Your task to perform on an android device: clear history in the chrome app Image 0: 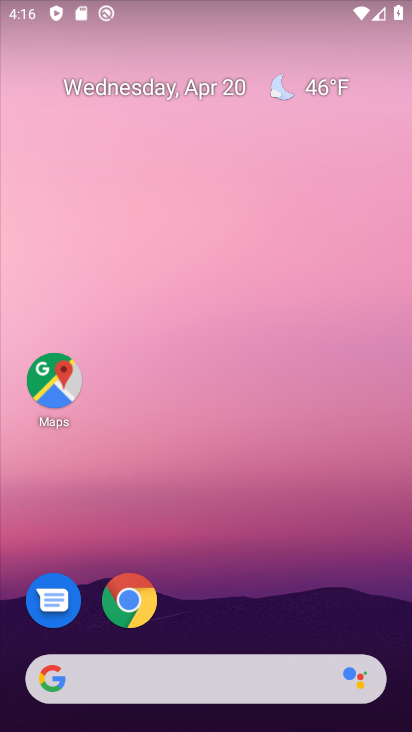
Step 0: click (131, 596)
Your task to perform on an android device: clear history in the chrome app Image 1: 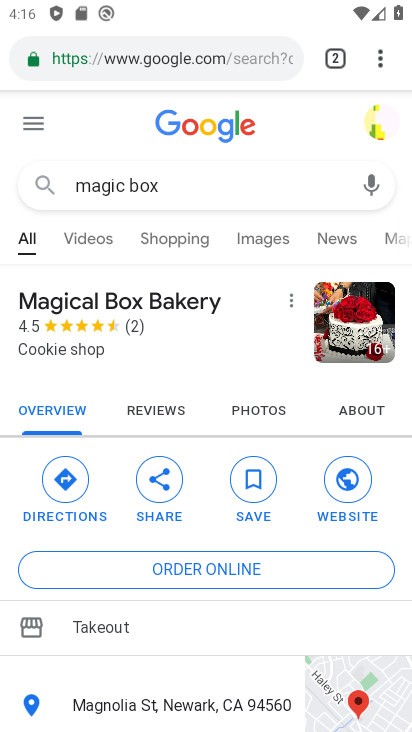
Step 1: click (377, 55)
Your task to perform on an android device: clear history in the chrome app Image 2: 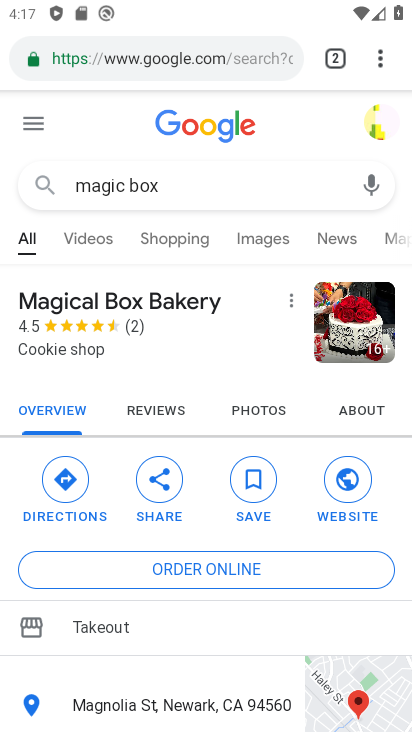
Step 2: click (382, 56)
Your task to perform on an android device: clear history in the chrome app Image 3: 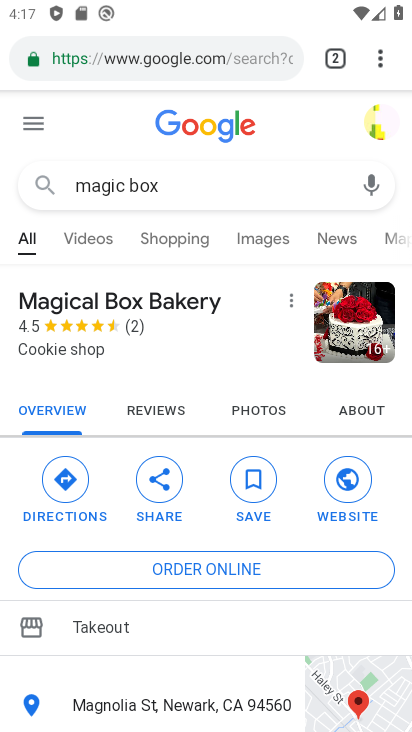
Step 3: click (378, 57)
Your task to perform on an android device: clear history in the chrome app Image 4: 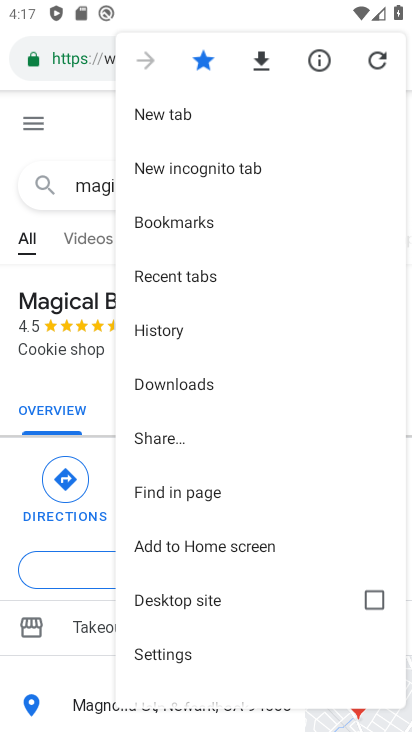
Step 4: click (189, 327)
Your task to perform on an android device: clear history in the chrome app Image 5: 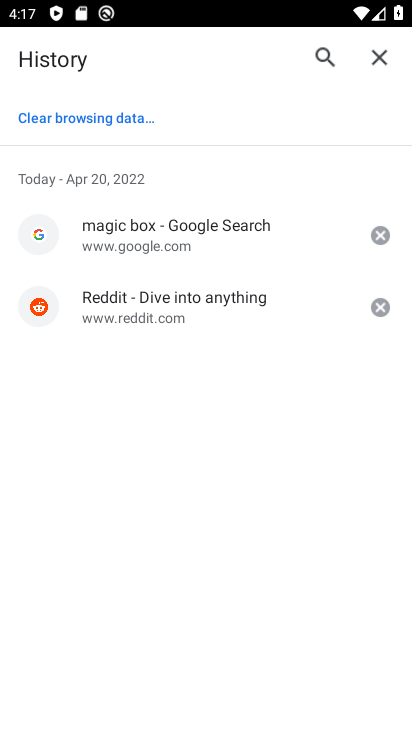
Step 5: click (84, 116)
Your task to perform on an android device: clear history in the chrome app Image 6: 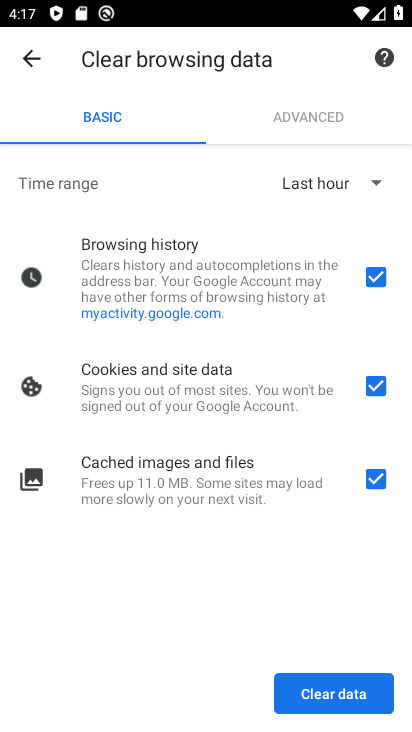
Step 6: click (324, 687)
Your task to perform on an android device: clear history in the chrome app Image 7: 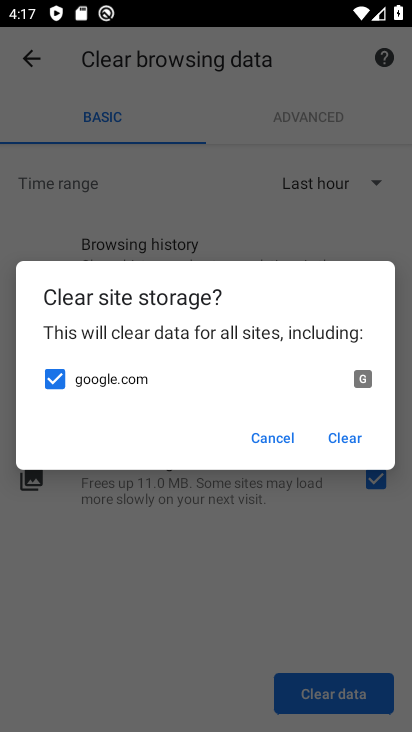
Step 7: click (356, 440)
Your task to perform on an android device: clear history in the chrome app Image 8: 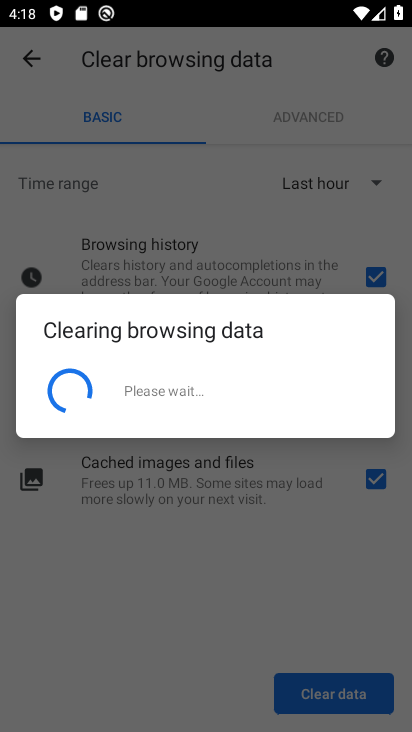
Step 8: task complete